Your task to perform on an android device: Go to location settings Image 0: 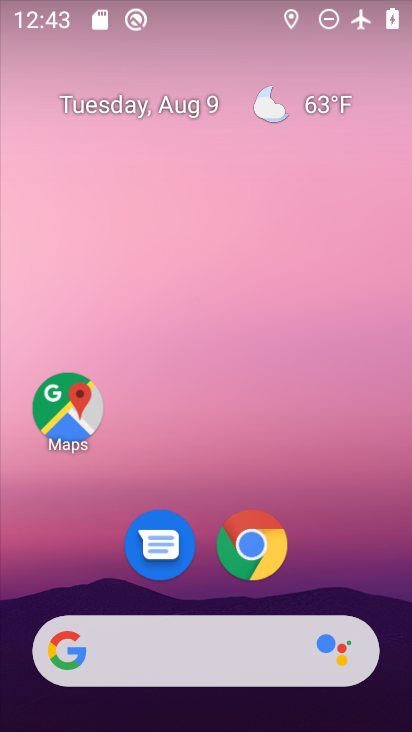
Step 0: drag from (183, 651) to (177, 202)
Your task to perform on an android device: Go to location settings Image 1: 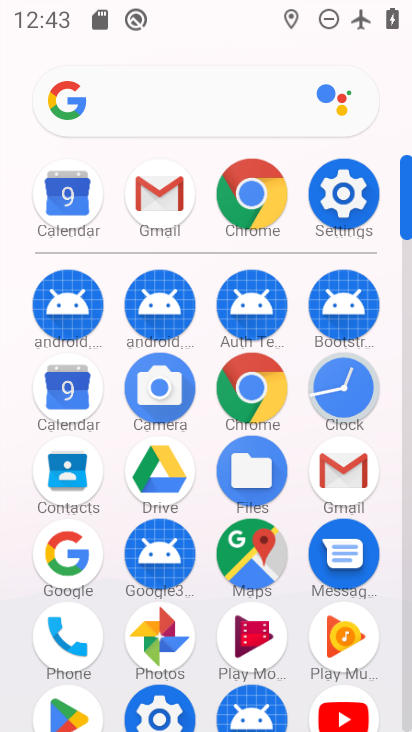
Step 1: click (344, 194)
Your task to perform on an android device: Go to location settings Image 2: 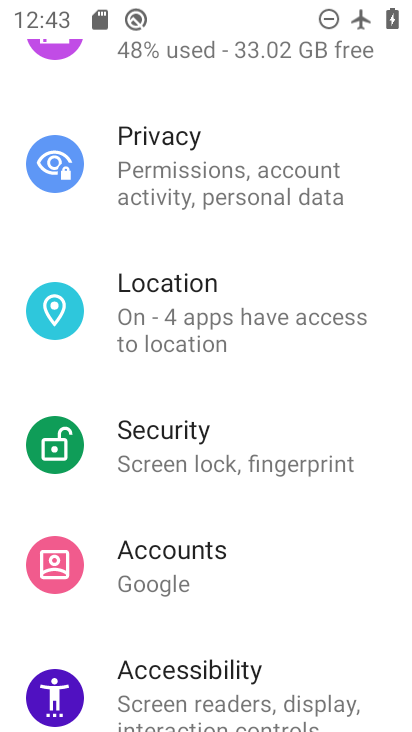
Step 2: click (229, 328)
Your task to perform on an android device: Go to location settings Image 3: 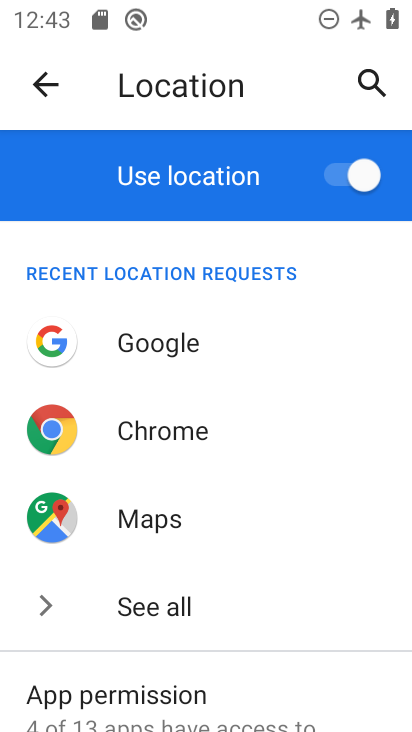
Step 3: task complete